Your task to perform on an android device: Go to ESPN.com Image 0: 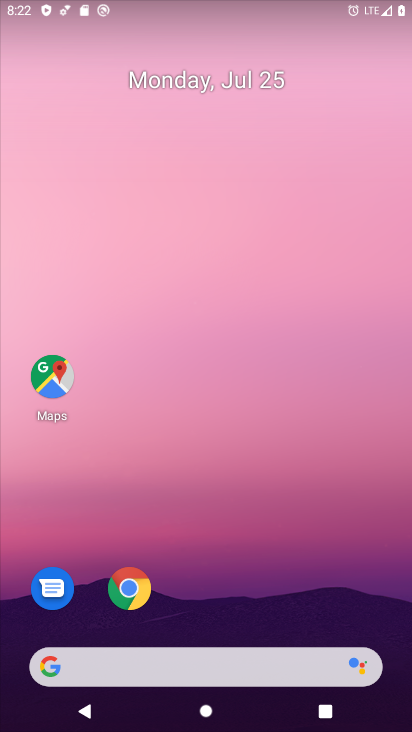
Step 0: press home button
Your task to perform on an android device: Go to ESPN.com Image 1: 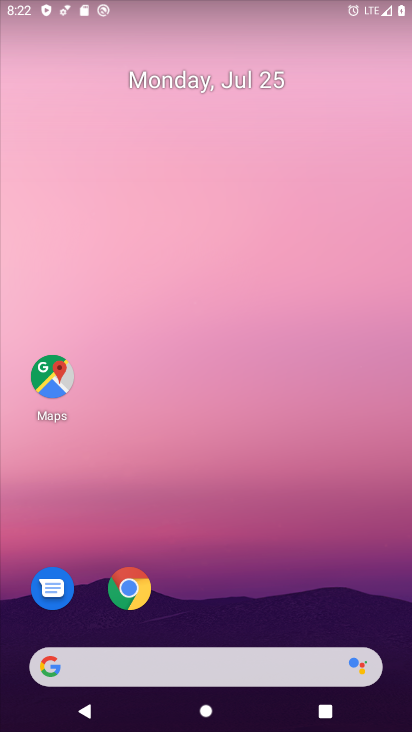
Step 1: drag from (336, 603) to (346, 71)
Your task to perform on an android device: Go to ESPN.com Image 2: 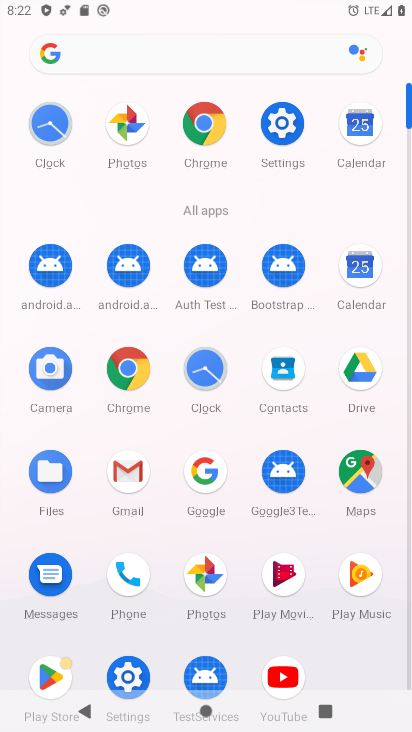
Step 2: click (205, 129)
Your task to perform on an android device: Go to ESPN.com Image 3: 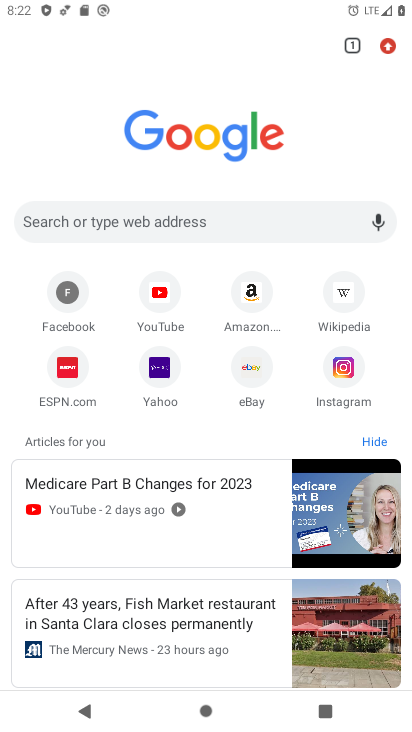
Step 3: click (191, 223)
Your task to perform on an android device: Go to ESPN.com Image 4: 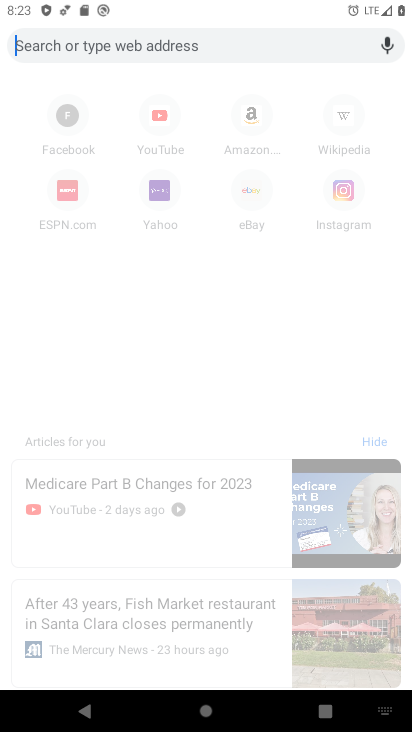
Step 4: type "espn.com"
Your task to perform on an android device: Go to ESPN.com Image 5: 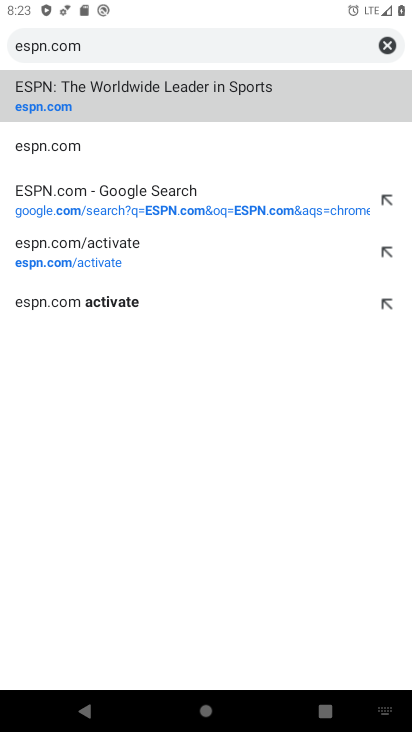
Step 5: click (348, 111)
Your task to perform on an android device: Go to ESPN.com Image 6: 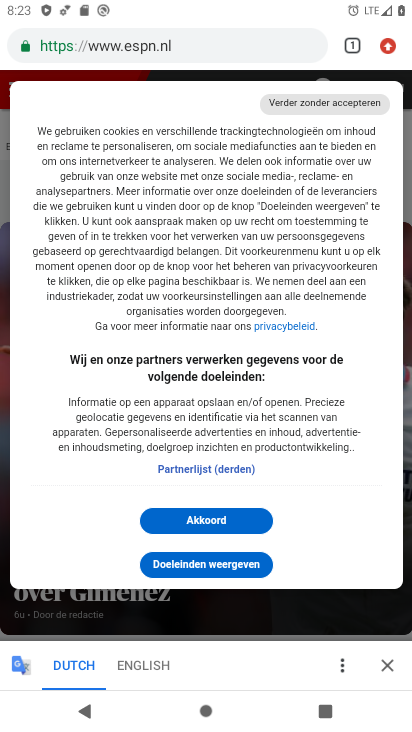
Step 6: task complete